Your task to perform on an android device: manage bookmarks in the chrome app Image 0: 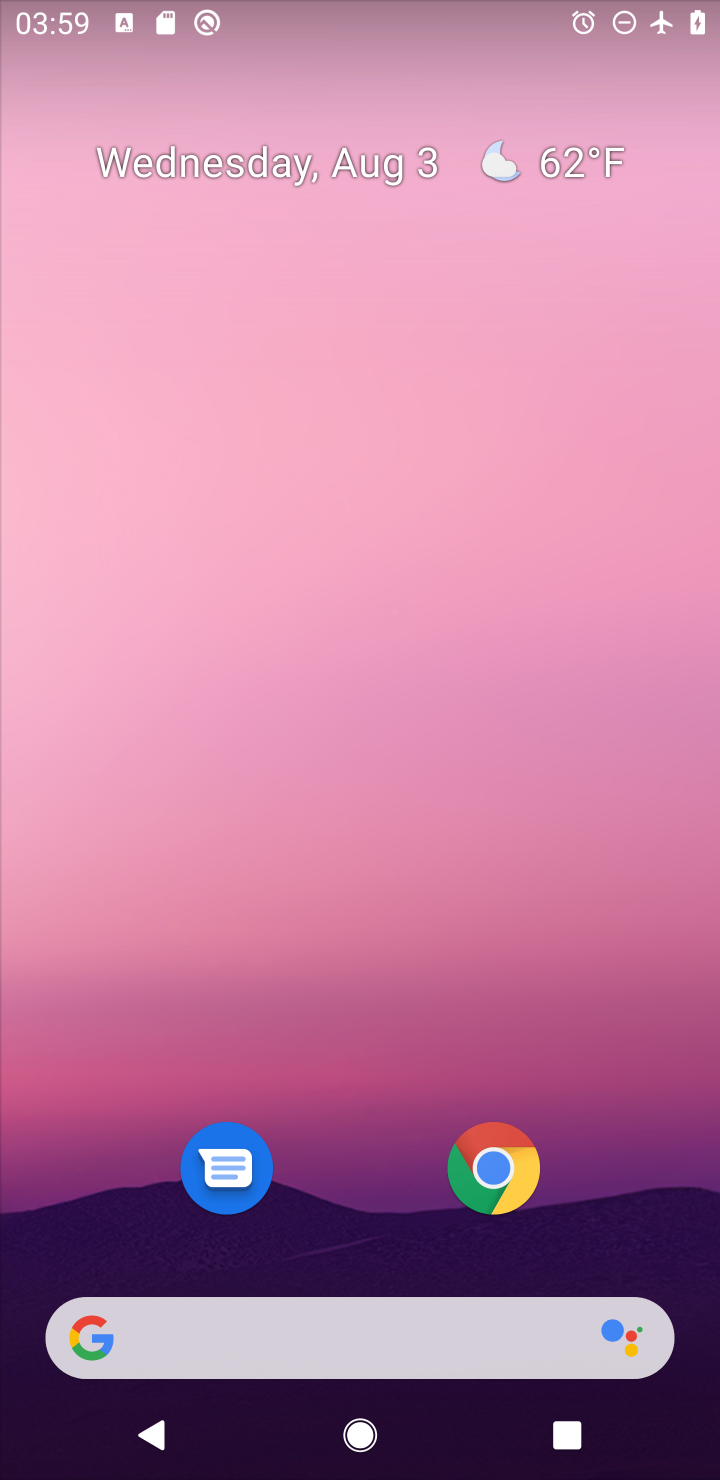
Step 0: click (490, 1164)
Your task to perform on an android device: manage bookmarks in the chrome app Image 1: 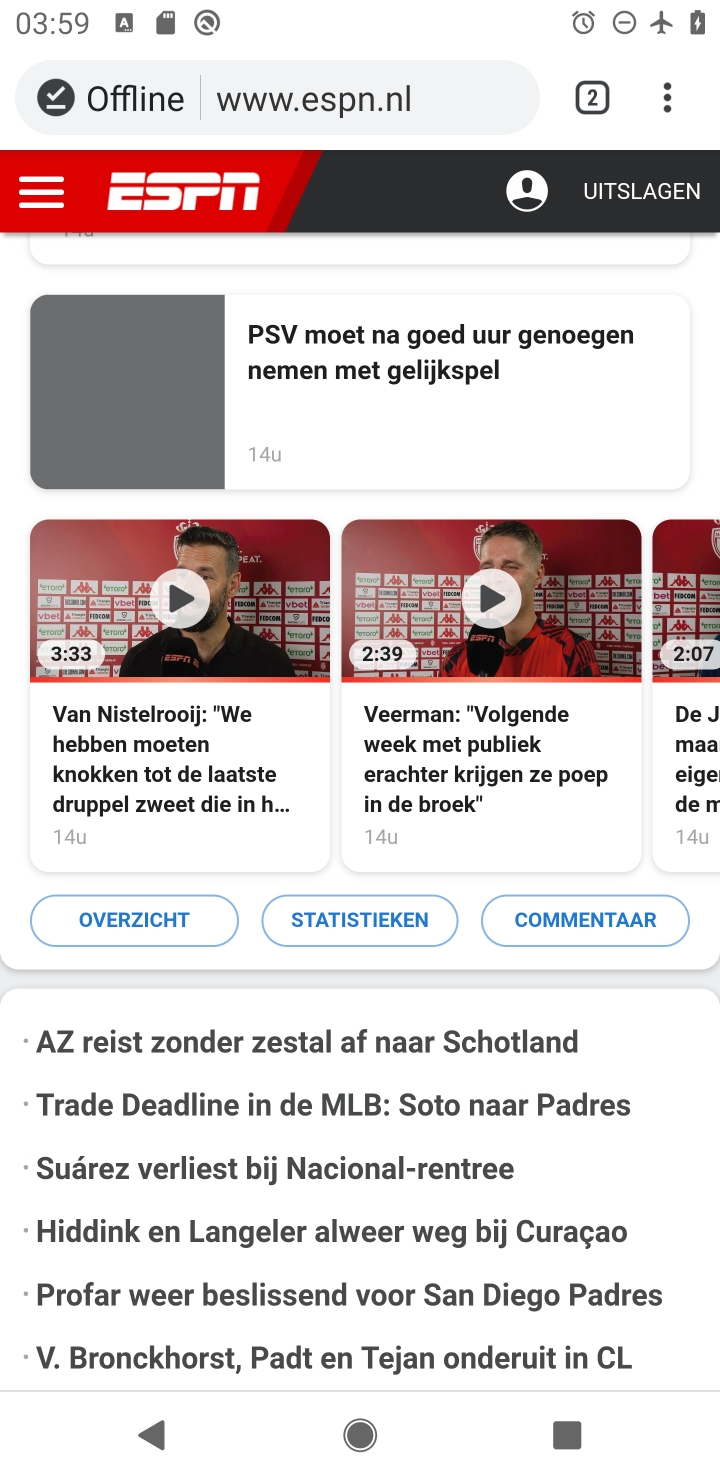
Step 1: click (655, 110)
Your task to perform on an android device: manage bookmarks in the chrome app Image 2: 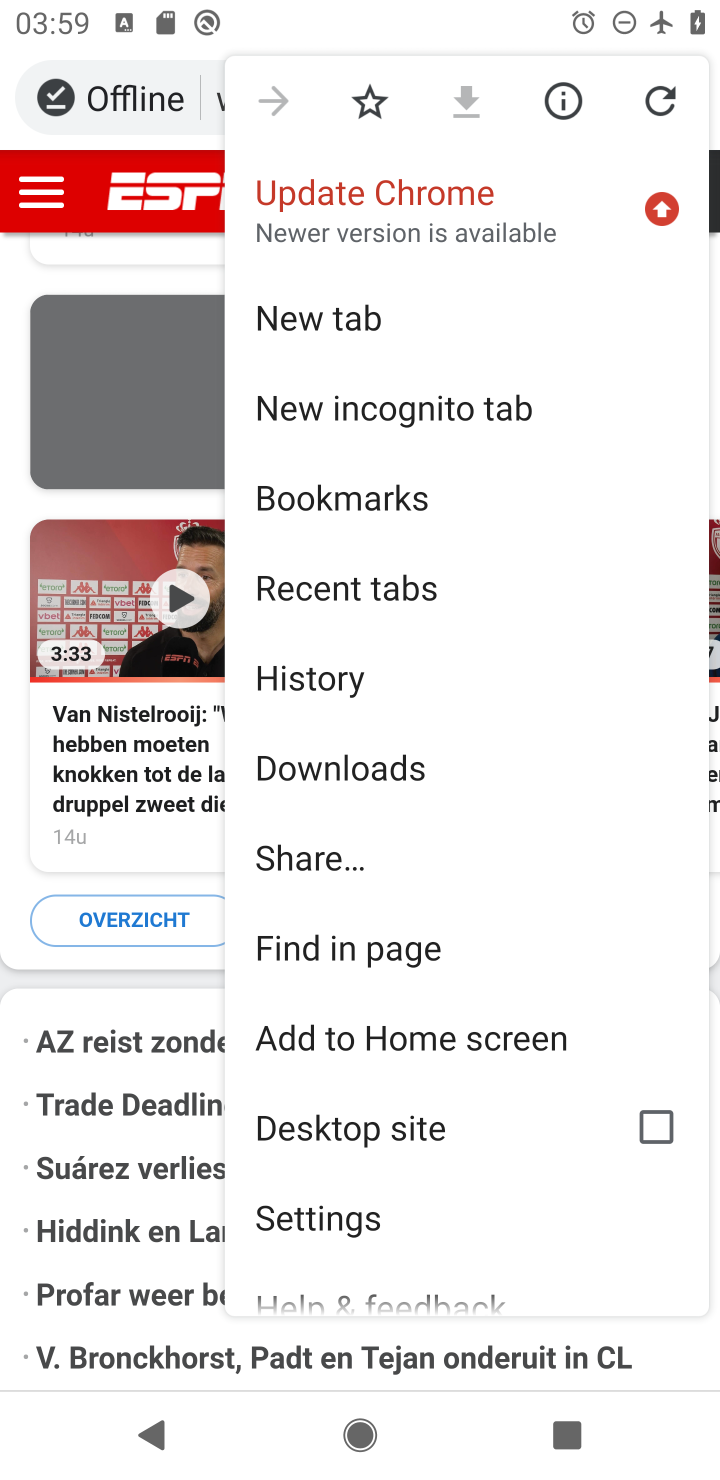
Step 2: click (345, 492)
Your task to perform on an android device: manage bookmarks in the chrome app Image 3: 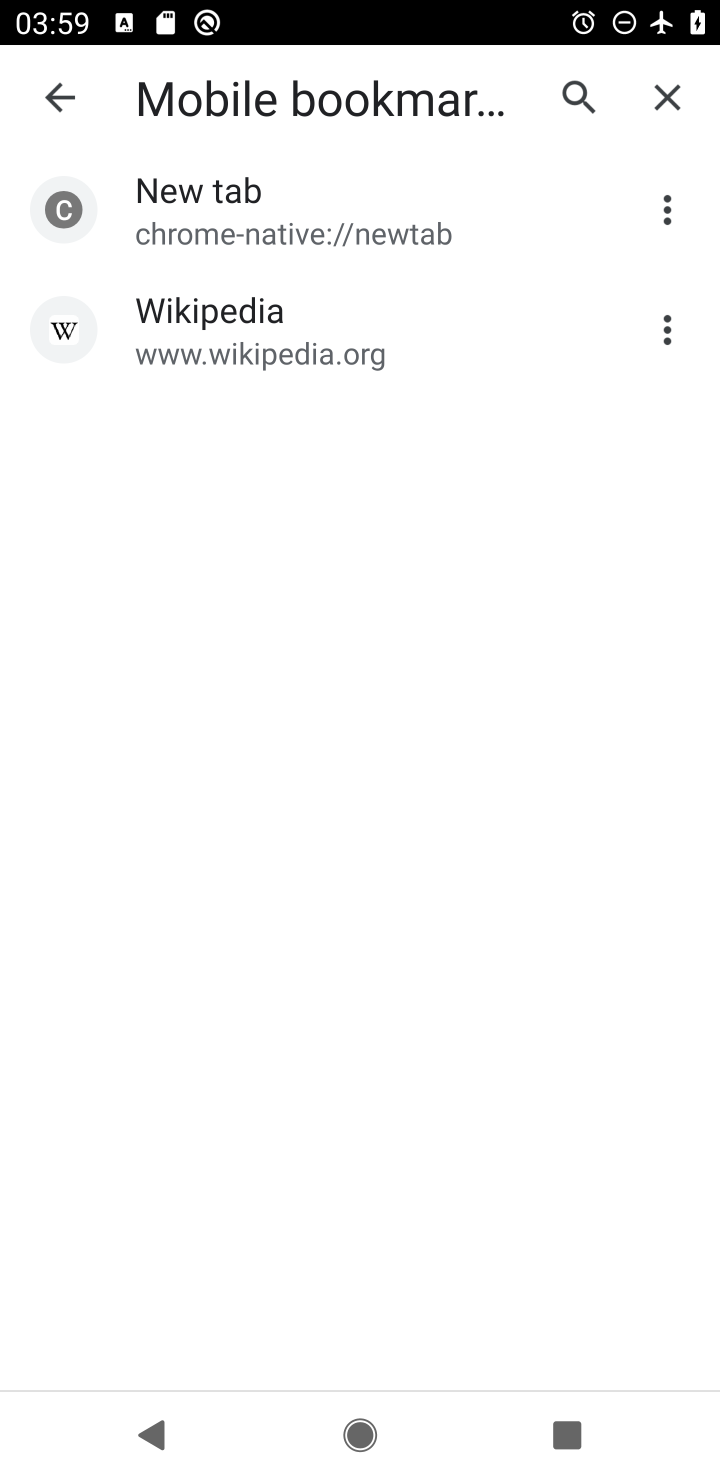
Step 3: click (211, 329)
Your task to perform on an android device: manage bookmarks in the chrome app Image 4: 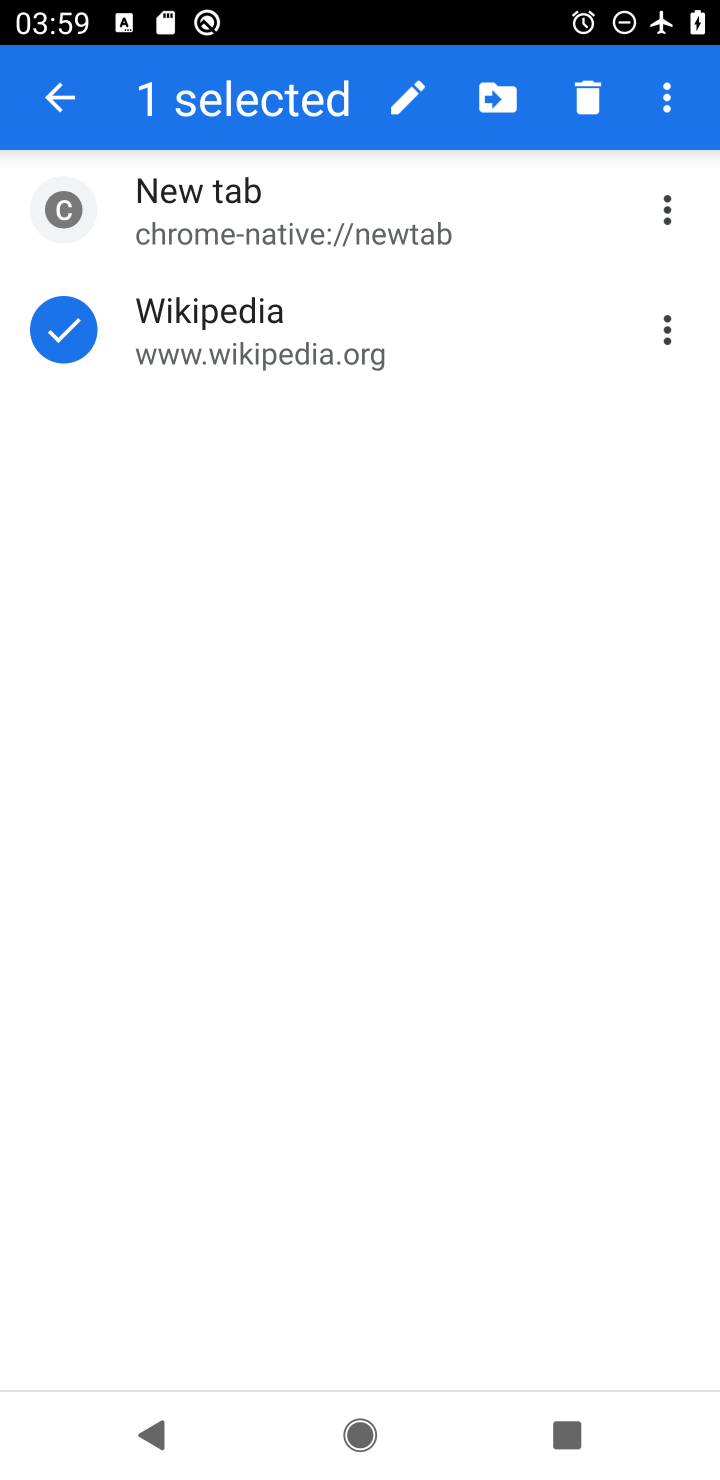
Step 4: click (490, 99)
Your task to perform on an android device: manage bookmarks in the chrome app Image 5: 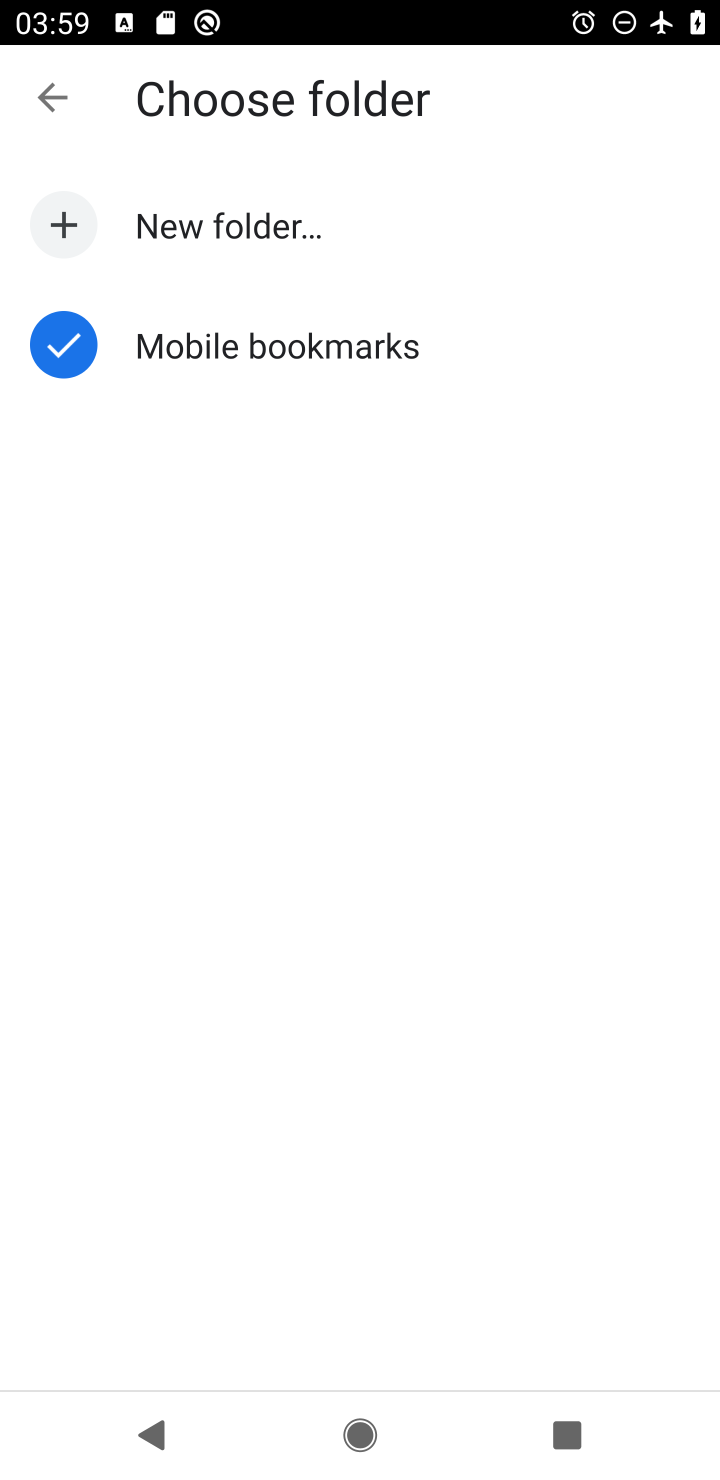
Step 5: click (61, 225)
Your task to perform on an android device: manage bookmarks in the chrome app Image 6: 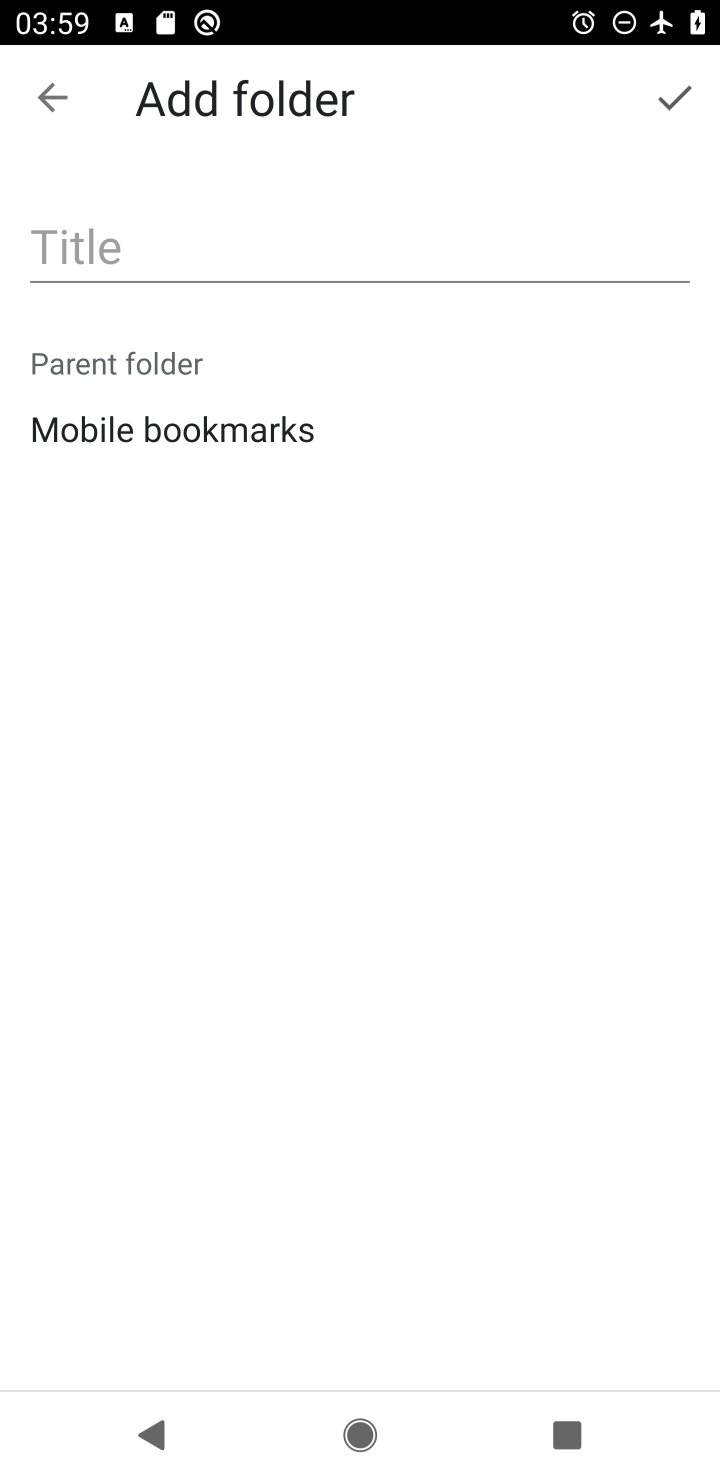
Step 6: click (133, 253)
Your task to perform on an android device: manage bookmarks in the chrome app Image 7: 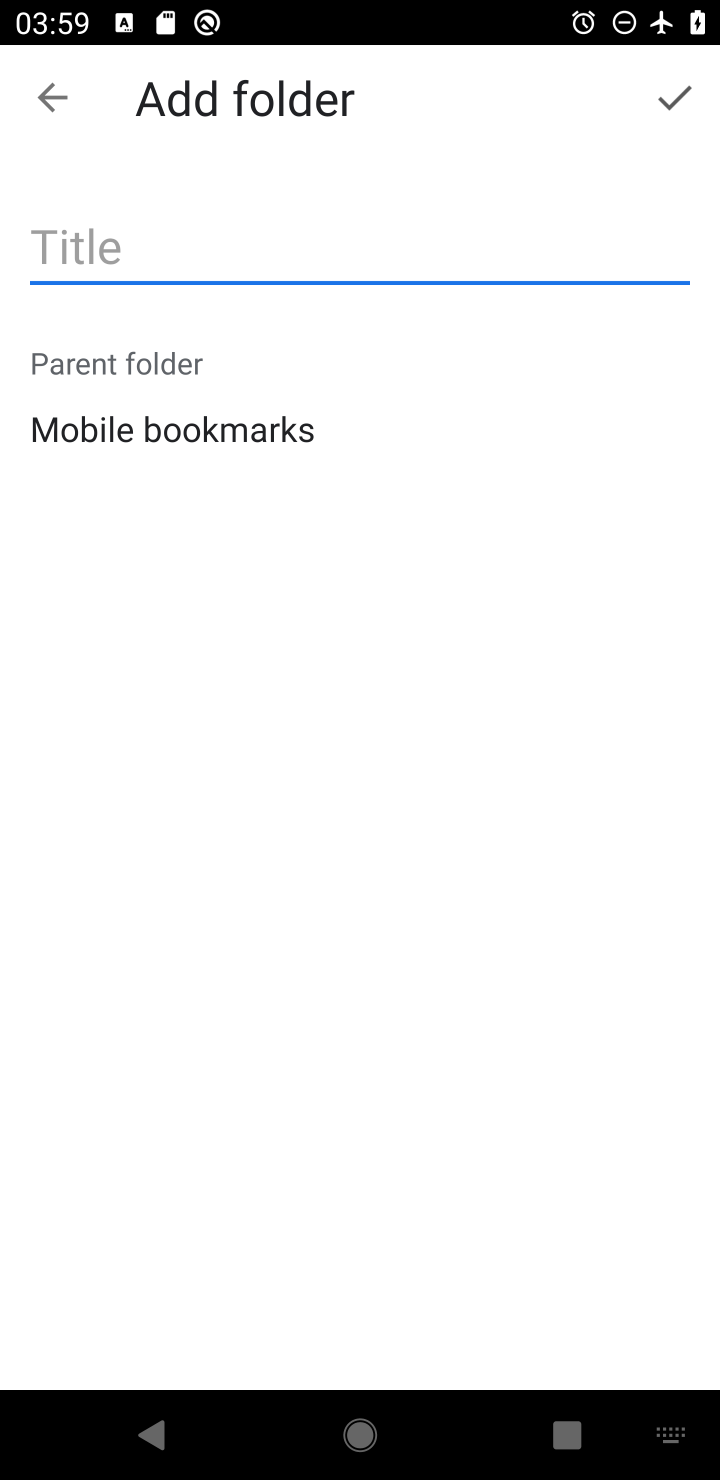
Step 7: type "tvf"
Your task to perform on an android device: manage bookmarks in the chrome app Image 8: 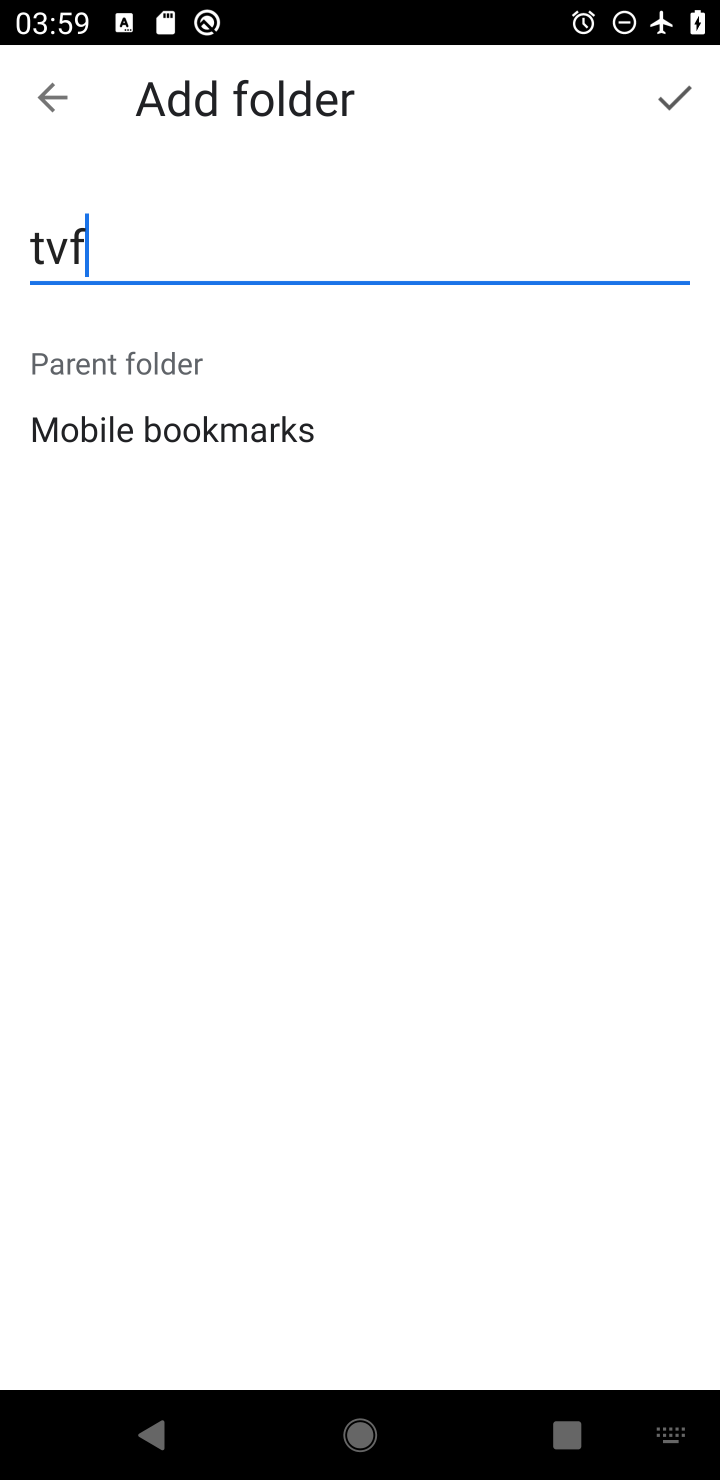
Step 8: click (671, 96)
Your task to perform on an android device: manage bookmarks in the chrome app Image 9: 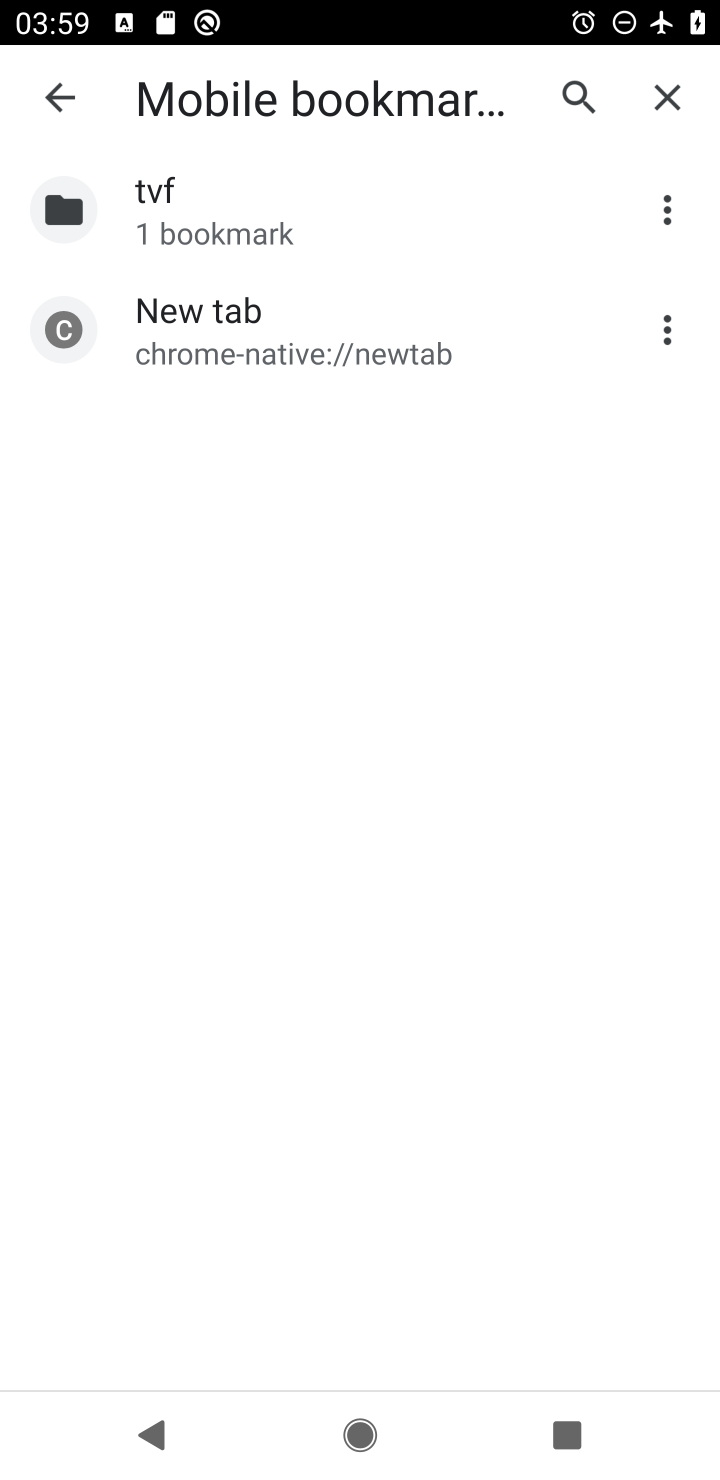
Step 9: task complete